Your task to perform on an android device: Search for vegetarian restaurants on Maps Image 0: 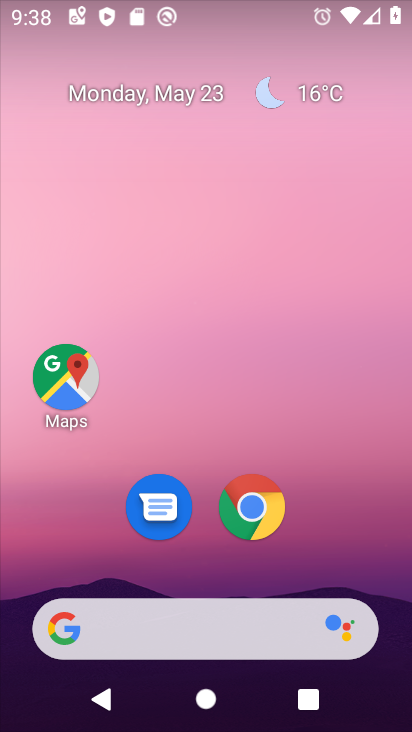
Step 0: click (75, 393)
Your task to perform on an android device: Search for vegetarian restaurants on Maps Image 1: 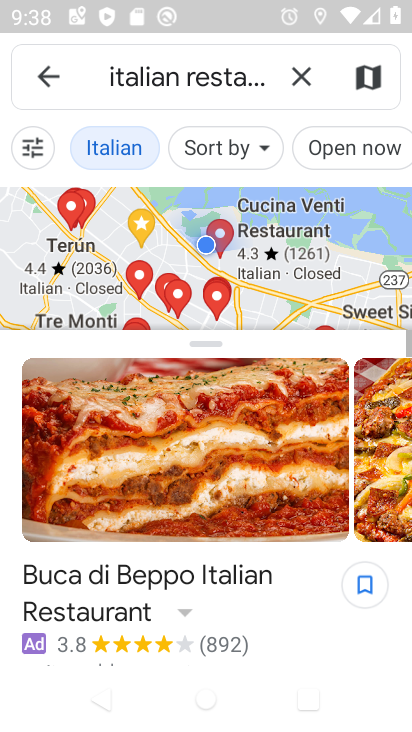
Step 1: click (294, 83)
Your task to perform on an android device: Search for vegetarian restaurants on Maps Image 2: 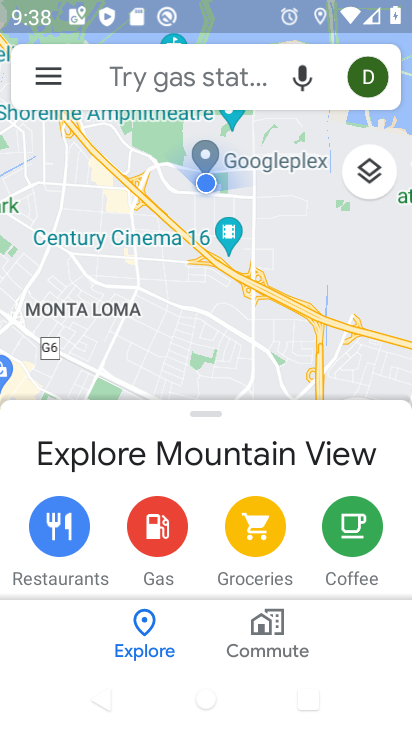
Step 2: click (116, 69)
Your task to perform on an android device: Search for vegetarian restaurants on Maps Image 3: 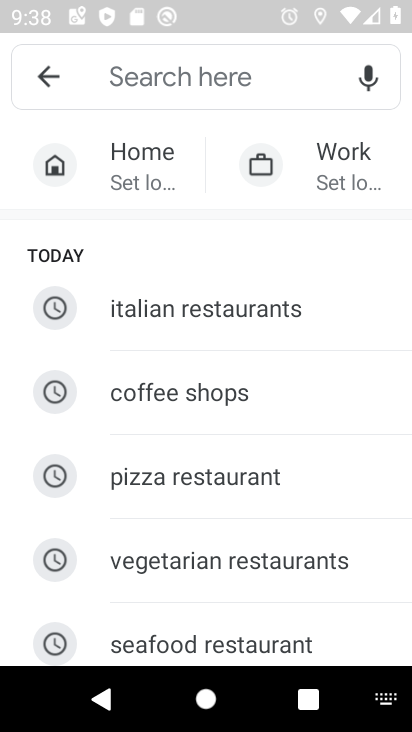
Step 3: type "vegetarian restaurants"
Your task to perform on an android device: Search for vegetarian restaurants on Maps Image 4: 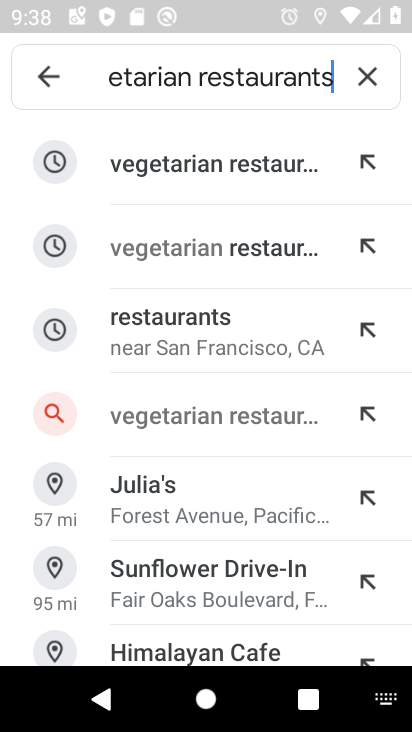
Step 4: click (204, 161)
Your task to perform on an android device: Search for vegetarian restaurants on Maps Image 5: 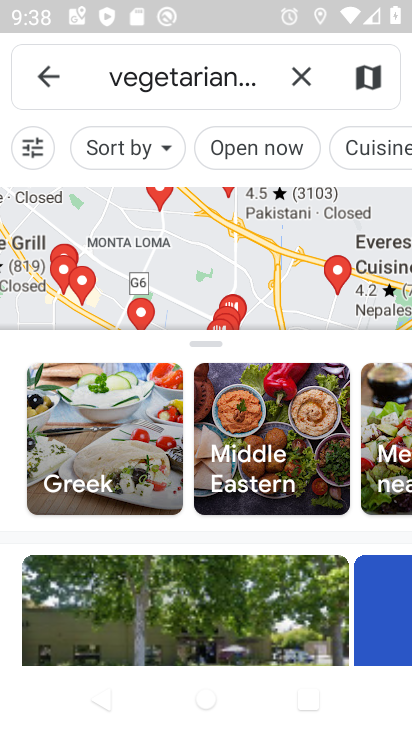
Step 5: task complete